Your task to perform on an android device: turn off data saver in the chrome app Image 0: 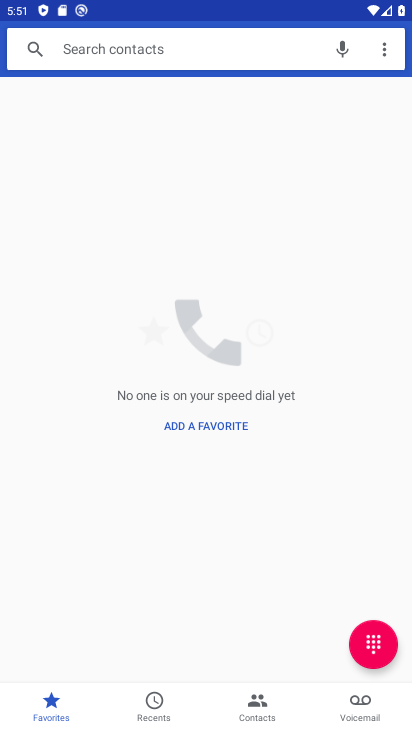
Step 0: press back button
Your task to perform on an android device: turn off data saver in the chrome app Image 1: 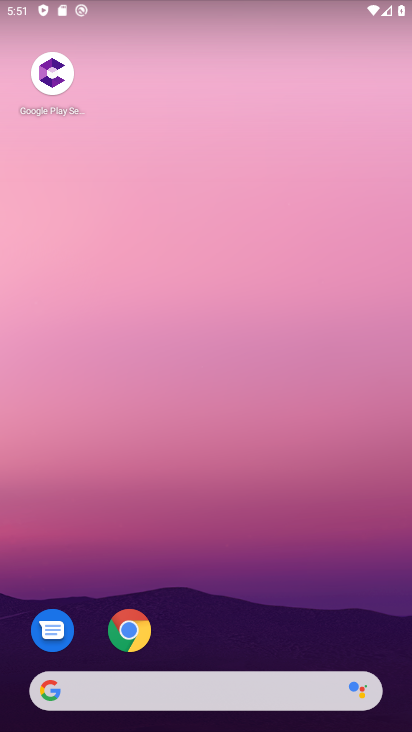
Step 1: drag from (215, 583) to (202, 4)
Your task to perform on an android device: turn off data saver in the chrome app Image 2: 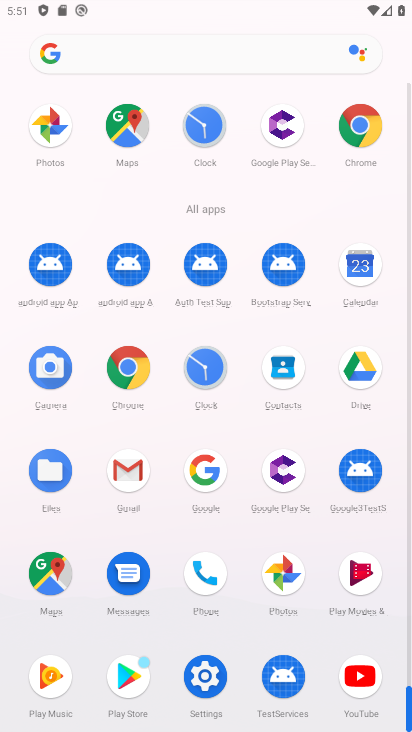
Step 2: click (124, 367)
Your task to perform on an android device: turn off data saver in the chrome app Image 3: 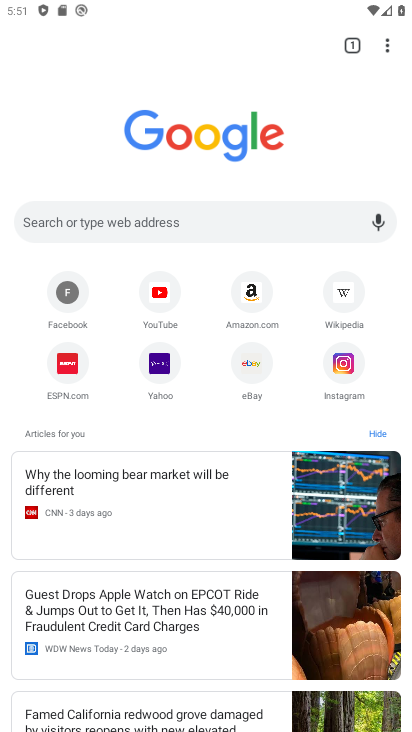
Step 3: drag from (386, 43) to (230, 426)
Your task to perform on an android device: turn off data saver in the chrome app Image 4: 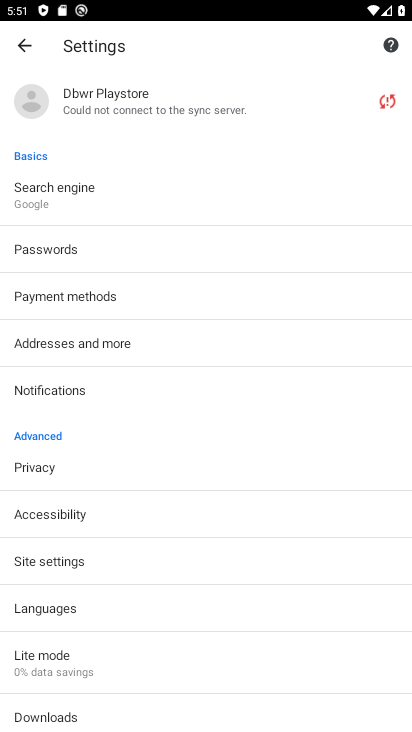
Step 4: click (68, 672)
Your task to perform on an android device: turn off data saver in the chrome app Image 5: 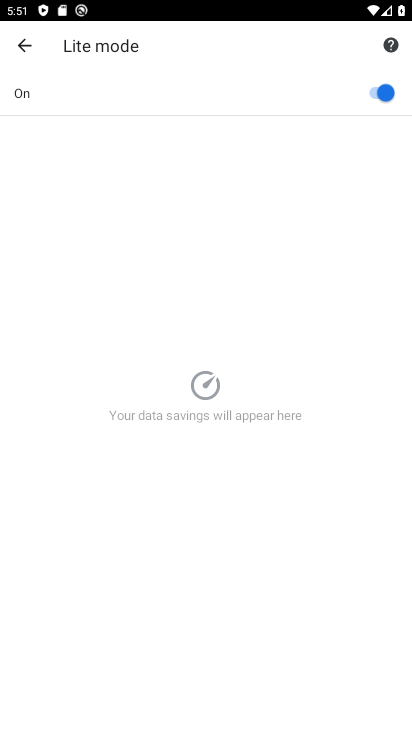
Step 5: click (373, 83)
Your task to perform on an android device: turn off data saver in the chrome app Image 6: 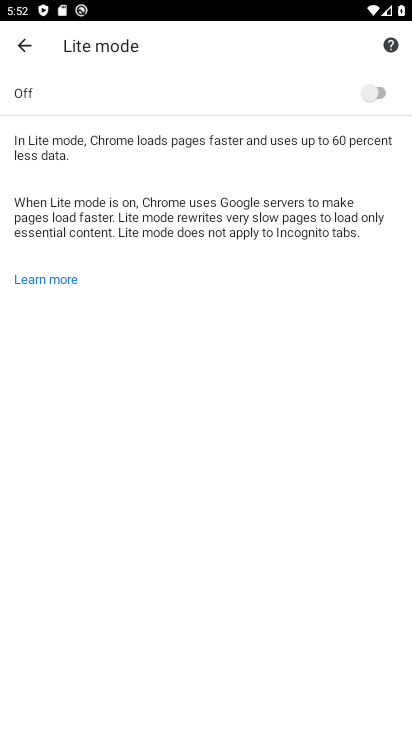
Step 6: task complete